Your task to perform on an android device: open a bookmark in the chrome app Image 0: 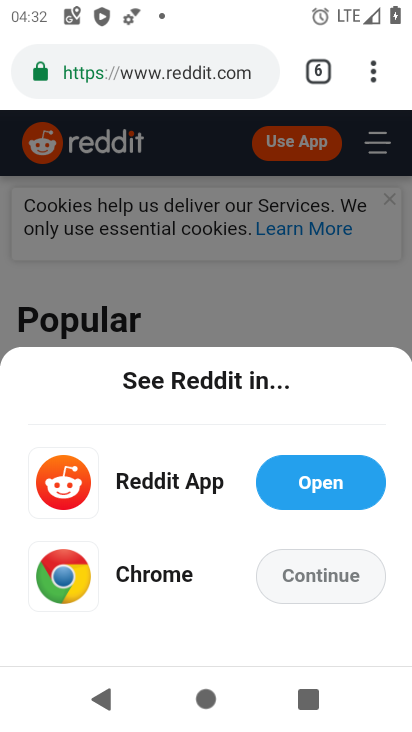
Step 0: press home button
Your task to perform on an android device: open a bookmark in the chrome app Image 1: 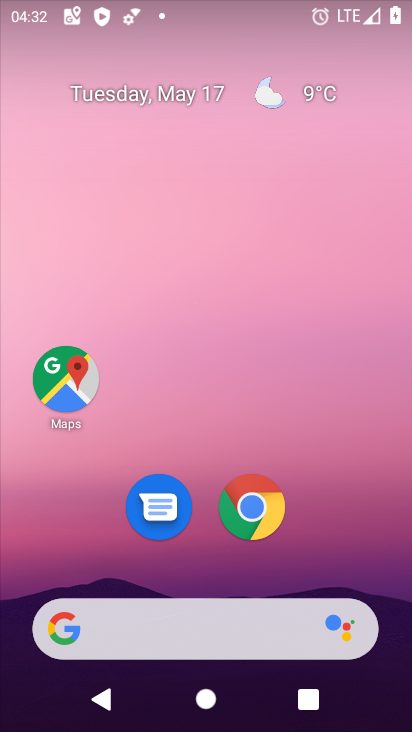
Step 1: click (261, 506)
Your task to perform on an android device: open a bookmark in the chrome app Image 2: 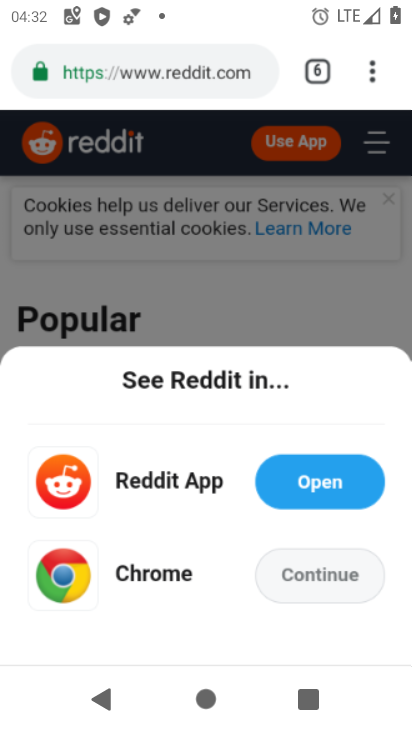
Step 2: click (375, 66)
Your task to perform on an android device: open a bookmark in the chrome app Image 3: 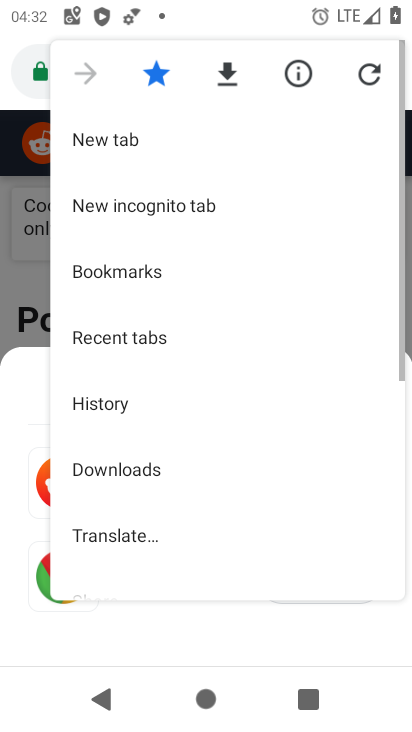
Step 3: click (130, 253)
Your task to perform on an android device: open a bookmark in the chrome app Image 4: 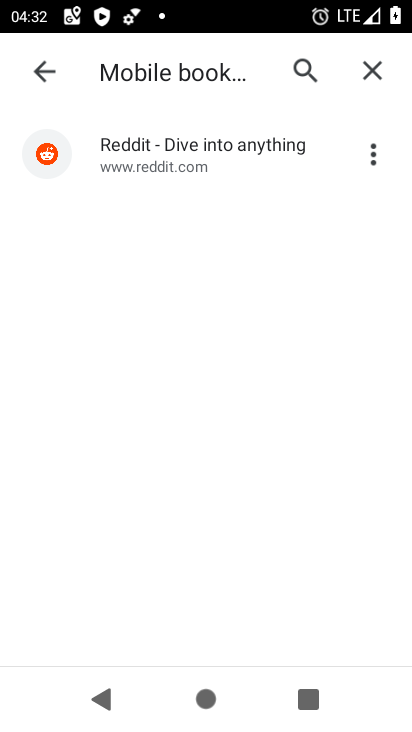
Step 4: click (208, 138)
Your task to perform on an android device: open a bookmark in the chrome app Image 5: 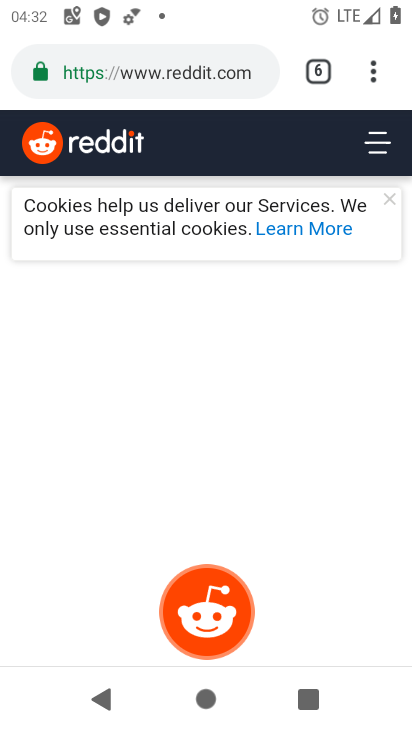
Step 5: task complete